Your task to perform on an android device: Go to Yahoo.com Image 0: 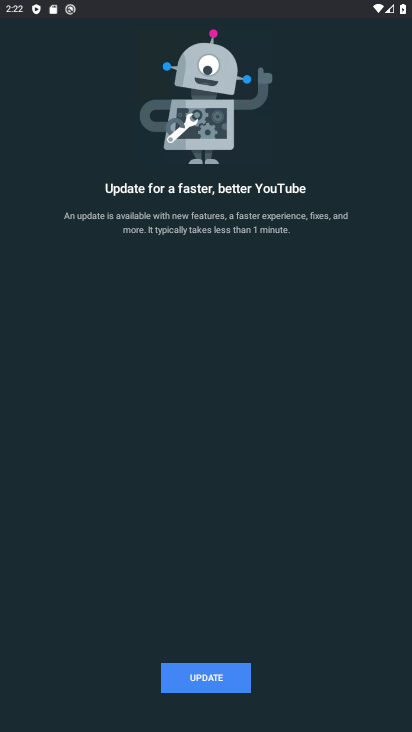
Step 0: press home button
Your task to perform on an android device: Go to Yahoo.com Image 1: 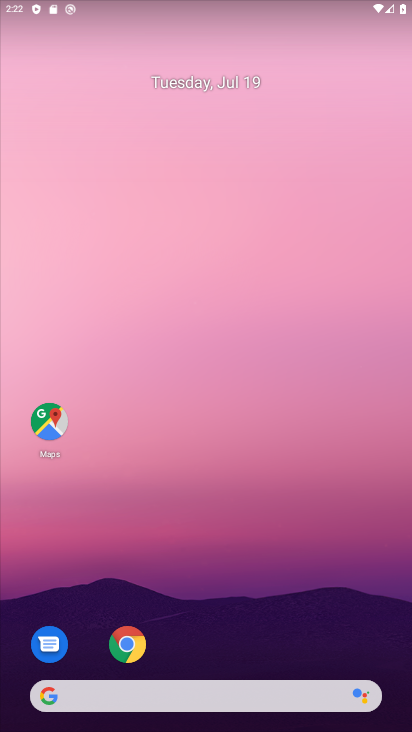
Step 1: click (126, 649)
Your task to perform on an android device: Go to Yahoo.com Image 2: 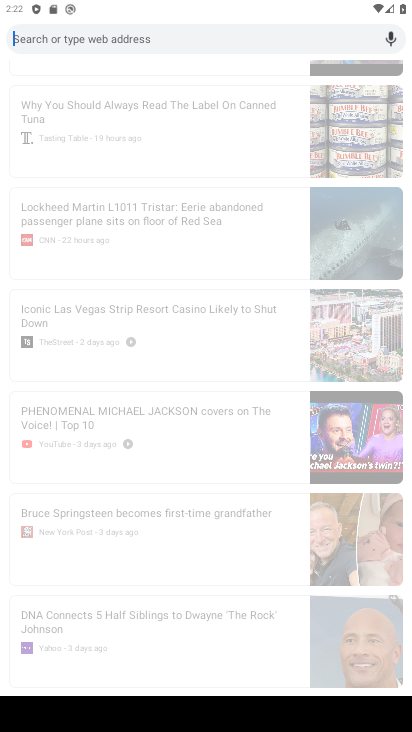
Step 2: type "yahoo.com"
Your task to perform on an android device: Go to Yahoo.com Image 3: 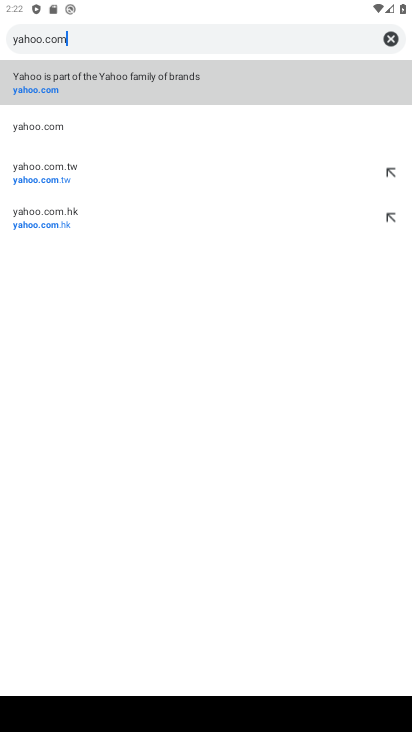
Step 3: click (52, 75)
Your task to perform on an android device: Go to Yahoo.com Image 4: 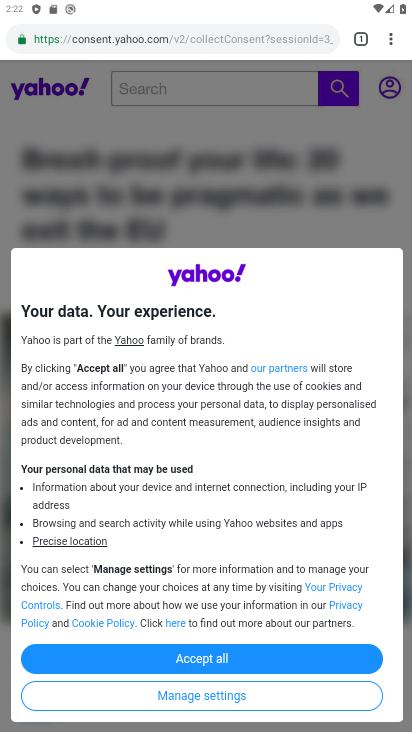
Step 4: task complete